Your task to perform on an android device: open a bookmark in the chrome app Image 0: 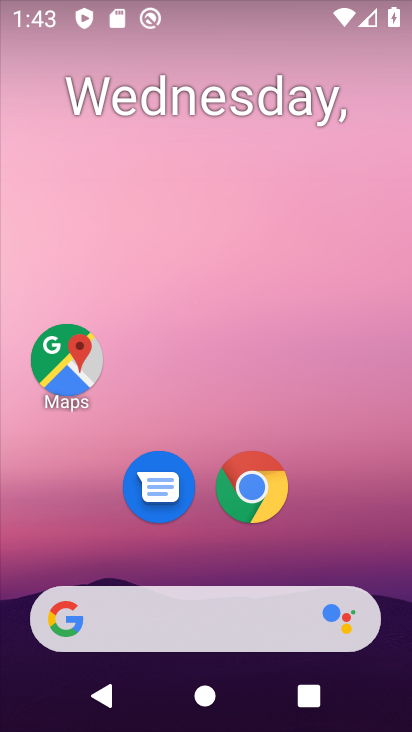
Step 0: drag from (304, 654) to (335, 4)
Your task to perform on an android device: open a bookmark in the chrome app Image 1: 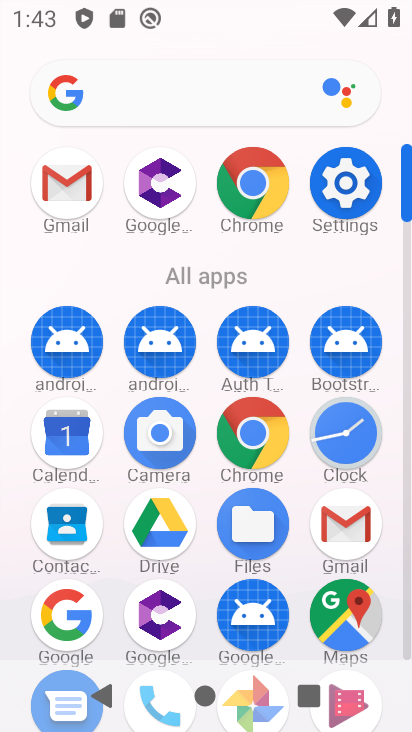
Step 1: click (235, 419)
Your task to perform on an android device: open a bookmark in the chrome app Image 2: 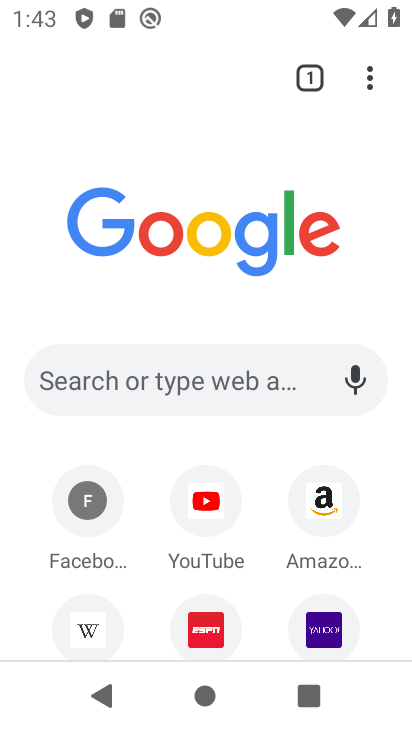
Step 2: task complete